Your task to perform on an android device: Find coffee shops on Maps Image 0: 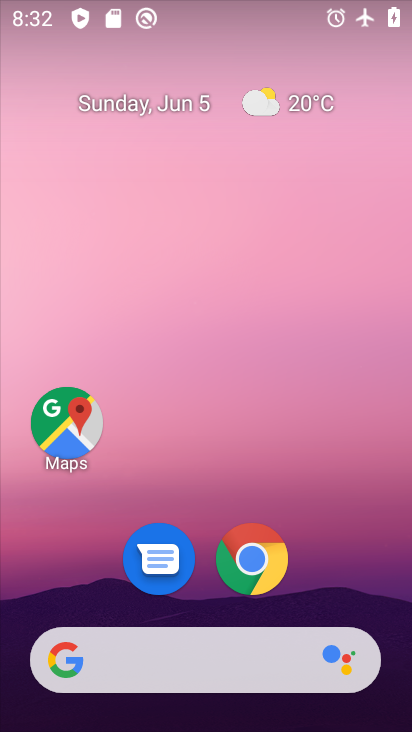
Step 0: click (59, 417)
Your task to perform on an android device: Find coffee shops on Maps Image 1: 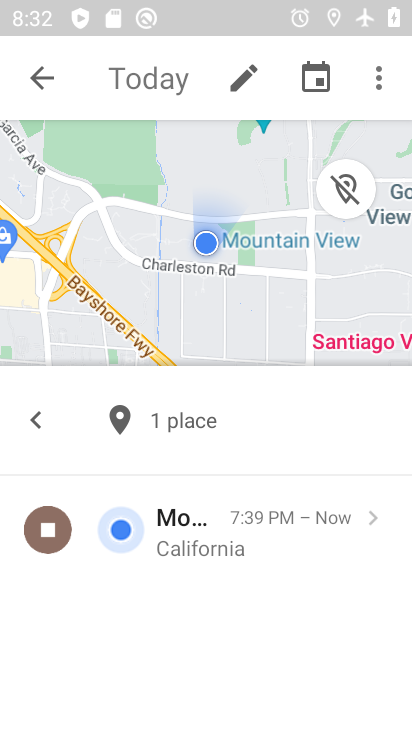
Step 1: click (53, 86)
Your task to perform on an android device: Find coffee shops on Maps Image 2: 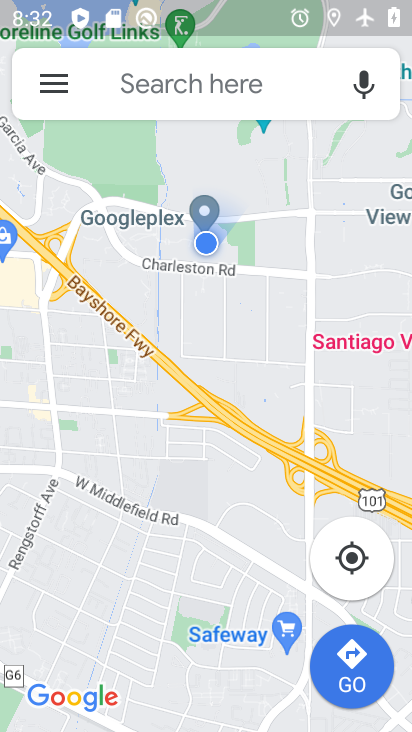
Step 2: click (56, 81)
Your task to perform on an android device: Find coffee shops on Maps Image 3: 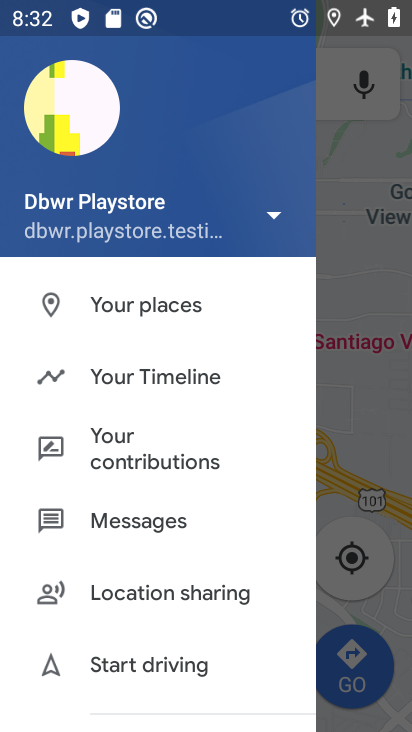
Step 3: click (345, 372)
Your task to perform on an android device: Find coffee shops on Maps Image 4: 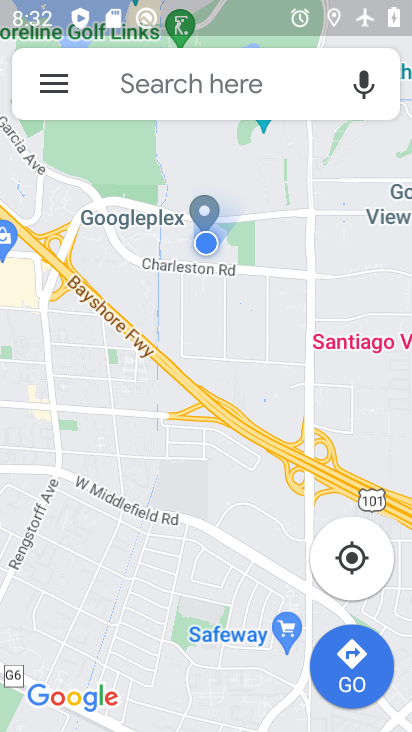
Step 4: click (290, 87)
Your task to perform on an android device: Find coffee shops on Maps Image 5: 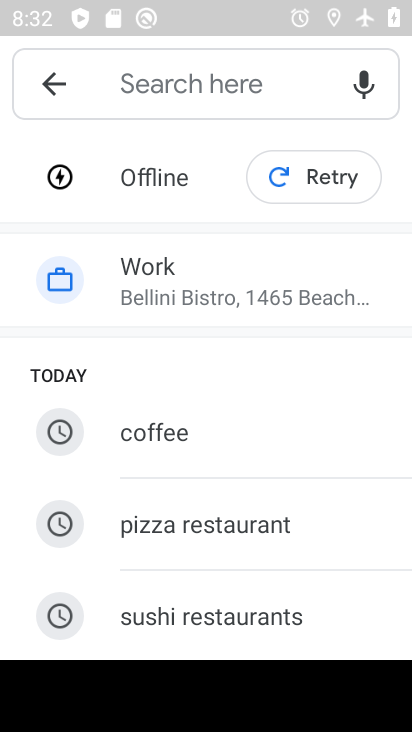
Step 5: type "coffee shops"
Your task to perform on an android device: Find coffee shops on Maps Image 6: 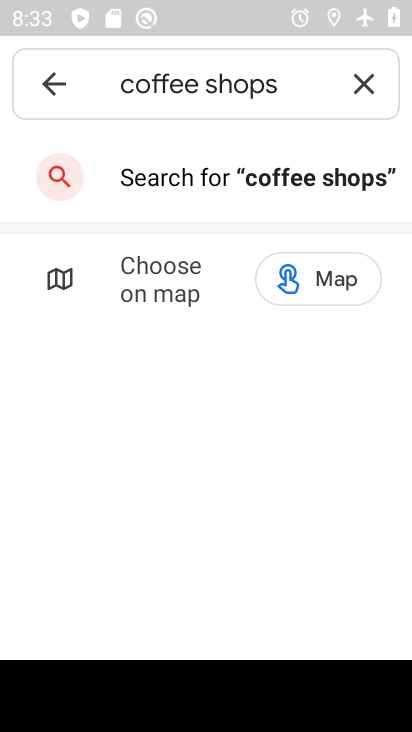
Step 6: press enter
Your task to perform on an android device: Find coffee shops on Maps Image 7: 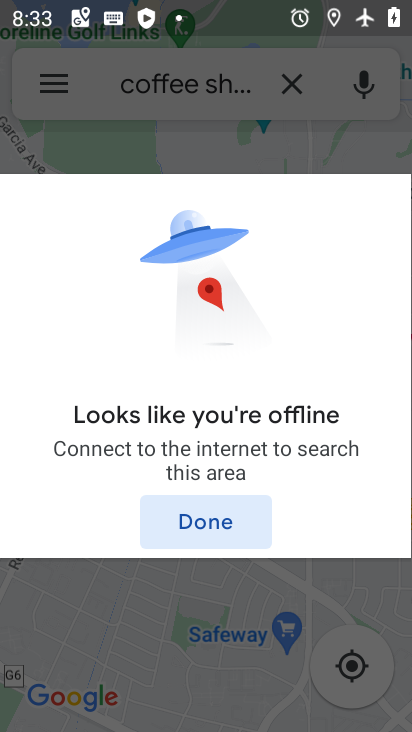
Step 7: task complete